Your task to perform on an android device: open chrome privacy settings Image 0: 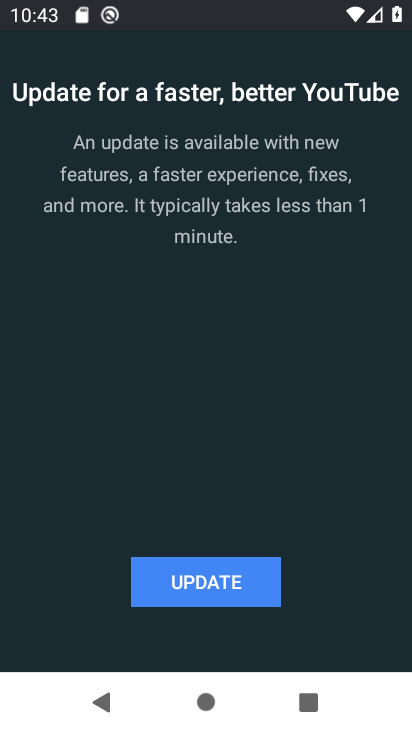
Step 0: press back button
Your task to perform on an android device: open chrome privacy settings Image 1: 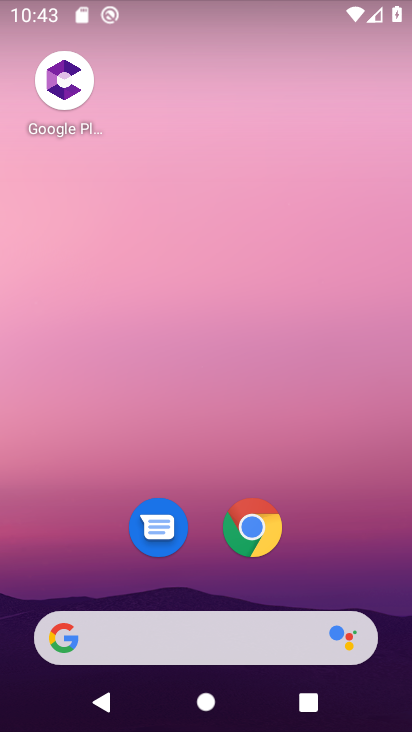
Step 1: click (242, 523)
Your task to perform on an android device: open chrome privacy settings Image 2: 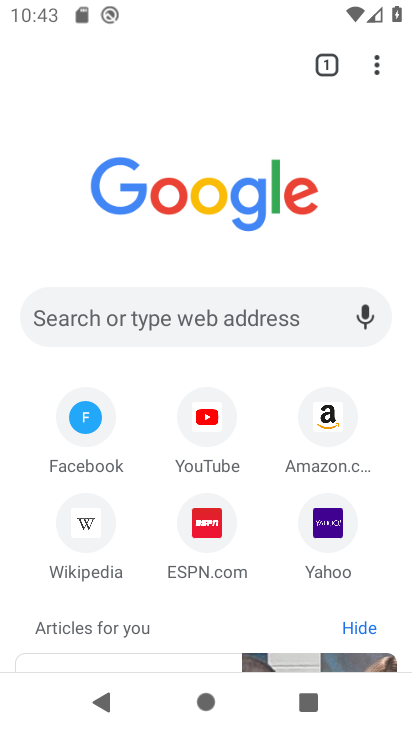
Step 2: click (385, 71)
Your task to perform on an android device: open chrome privacy settings Image 3: 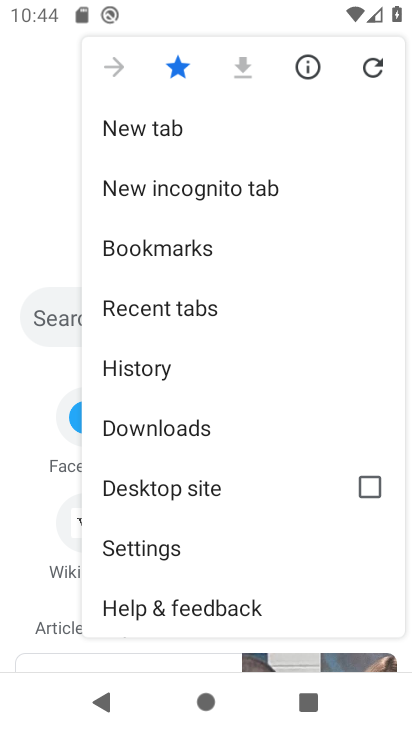
Step 3: click (186, 548)
Your task to perform on an android device: open chrome privacy settings Image 4: 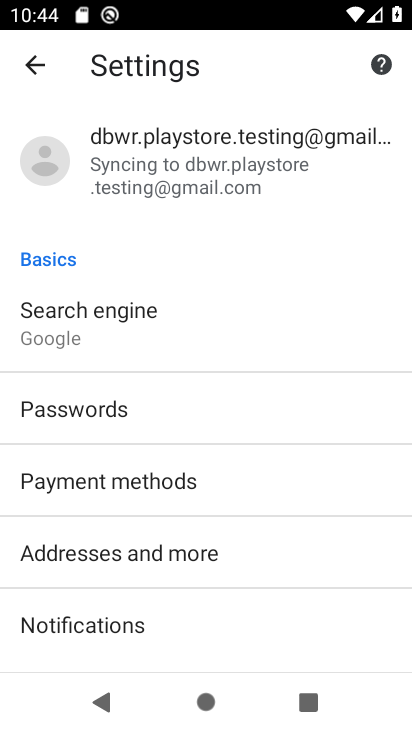
Step 4: drag from (218, 635) to (196, 339)
Your task to perform on an android device: open chrome privacy settings Image 5: 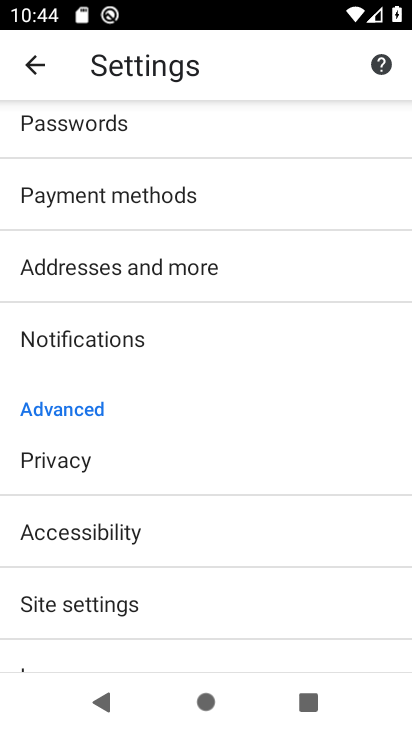
Step 5: click (149, 462)
Your task to perform on an android device: open chrome privacy settings Image 6: 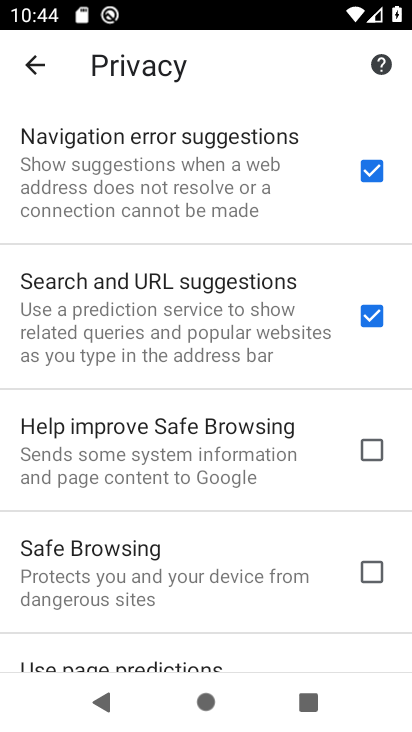
Step 6: task complete